Your task to perform on an android device: Search for vegetarian restaurants on Maps Image 0: 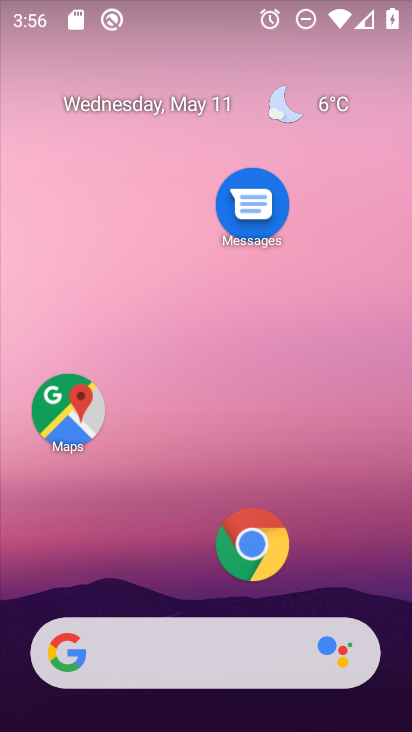
Step 0: click (61, 408)
Your task to perform on an android device: Search for vegetarian restaurants on Maps Image 1: 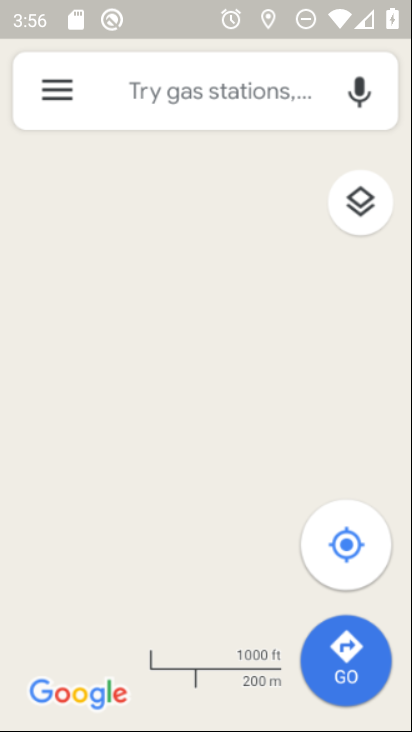
Step 1: click (186, 96)
Your task to perform on an android device: Search for vegetarian restaurants on Maps Image 2: 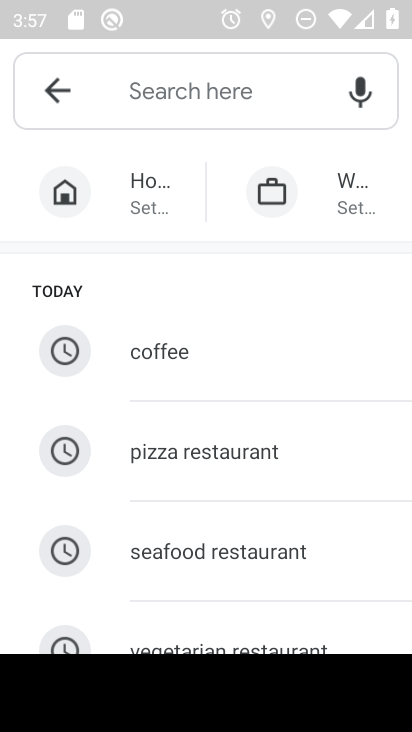
Step 2: drag from (192, 602) to (310, 190)
Your task to perform on an android device: Search for vegetarian restaurants on Maps Image 3: 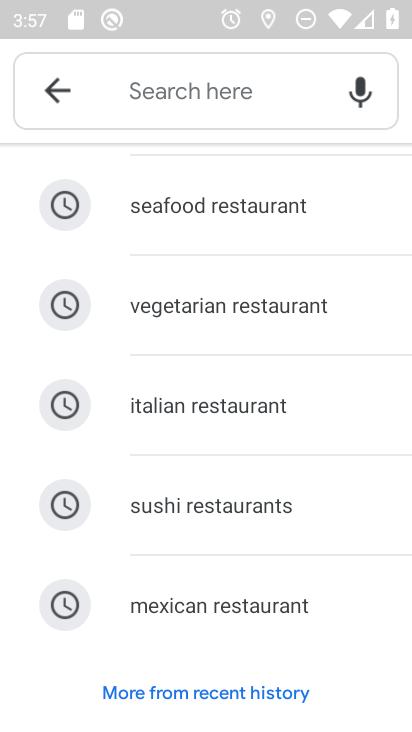
Step 3: click (172, 306)
Your task to perform on an android device: Search for vegetarian restaurants on Maps Image 4: 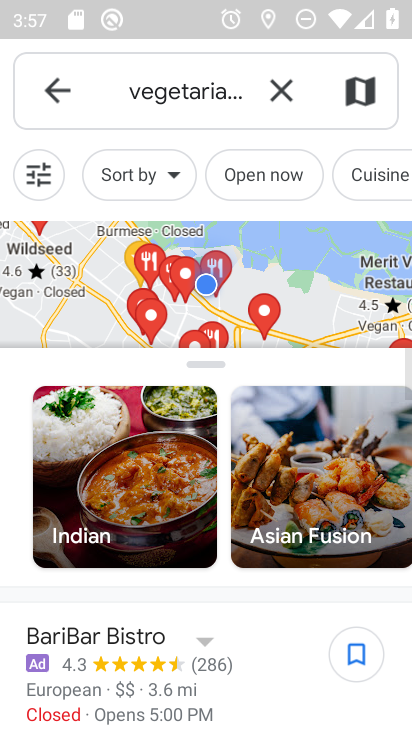
Step 4: task complete